Your task to perform on an android device: Go to ESPN.com Image 0: 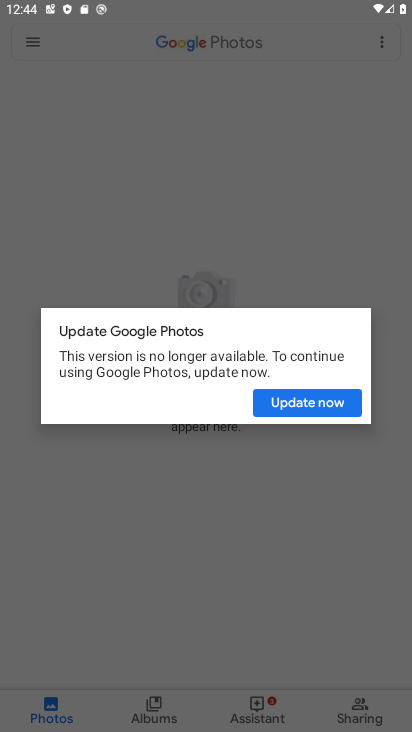
Step 0: press home button
Your task to perform on an android device: Go to ESPN.com Image 1: 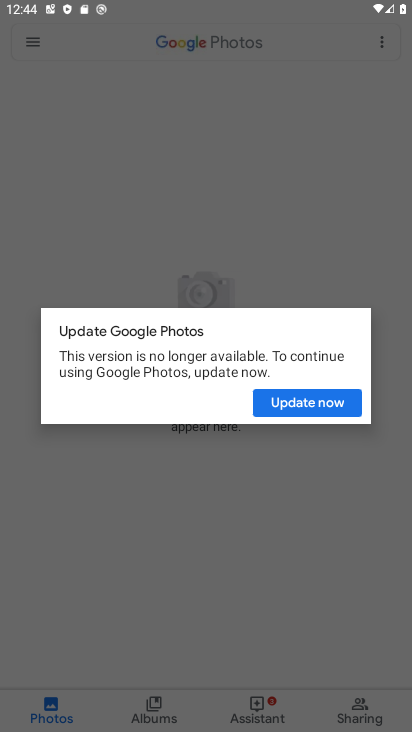
Step 1: press home button
Your task to perform on an android device: Go to ESPN.com Image 2: 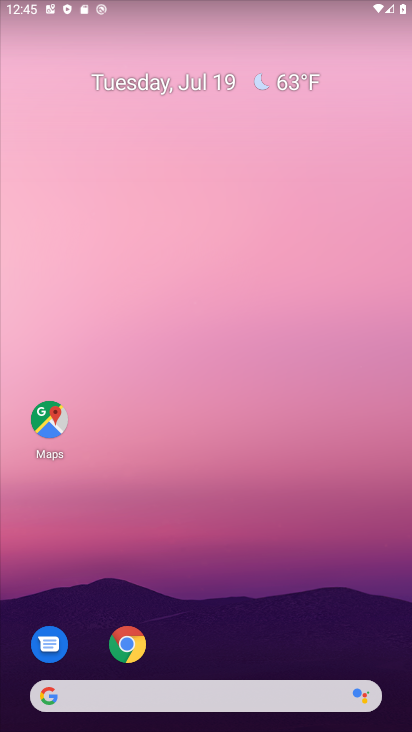
Step 2: click (120, 649)
Your task to perform on an android device: Go to ESPN.com Image 3: 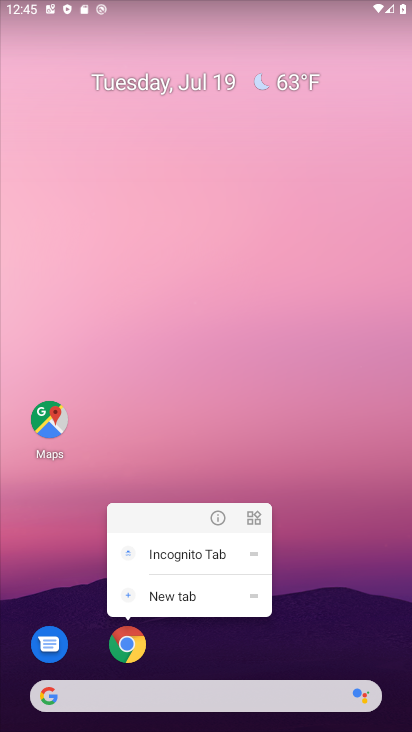
Step 3: click (120, 649)
Your task to perform on an android device: Go to ESPN.com Image 4: 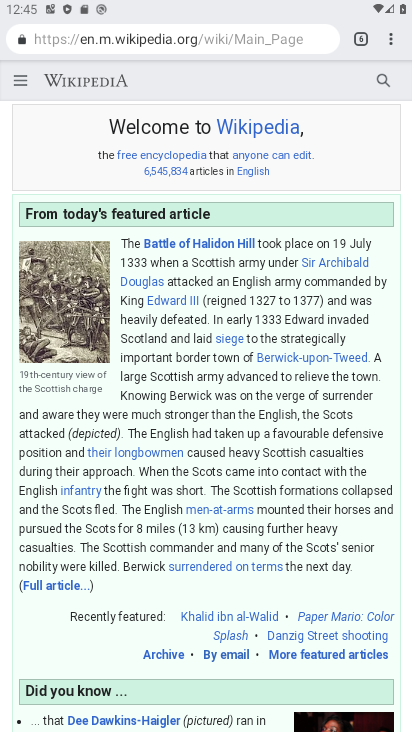
Step 4: click (389, 40)
Your task to perform on an android device: Go to ESPN.com Image 5: 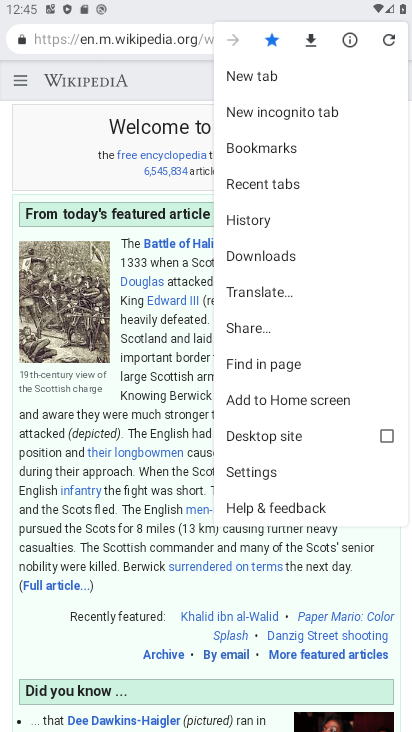
Step 5: click (250, 75)
Your task to perform on an android device: Go to ESPN.com Image 6: 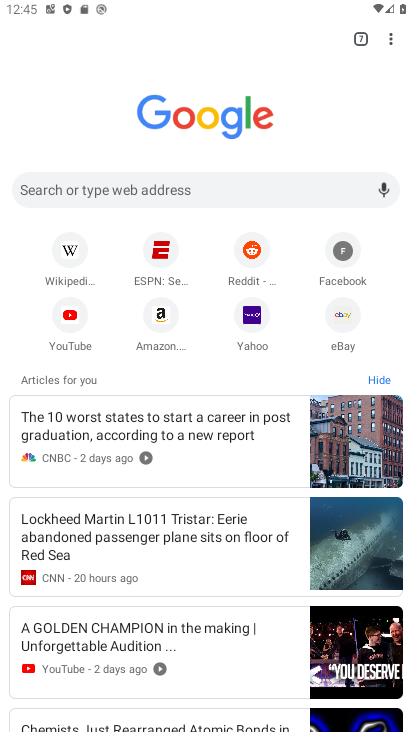
Step 6: click (158, 253)
Your task to perform on an android device: Go to ESPN.com Image 7: 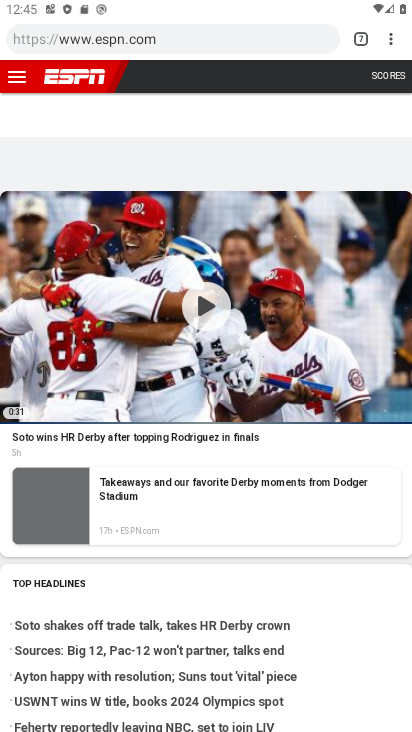
Step 7: task complete